Your task to perform on an android device: Open display settings Image 0: 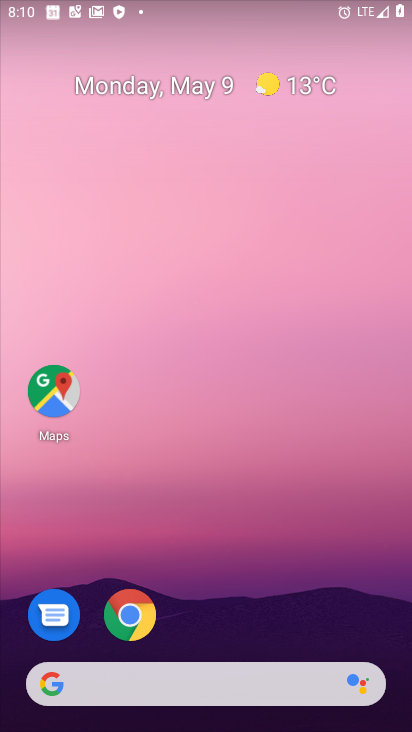
Step 0: drag from (203, 613) to (248, 122)
Your task to perform on an android device: Open display settings Image 1: 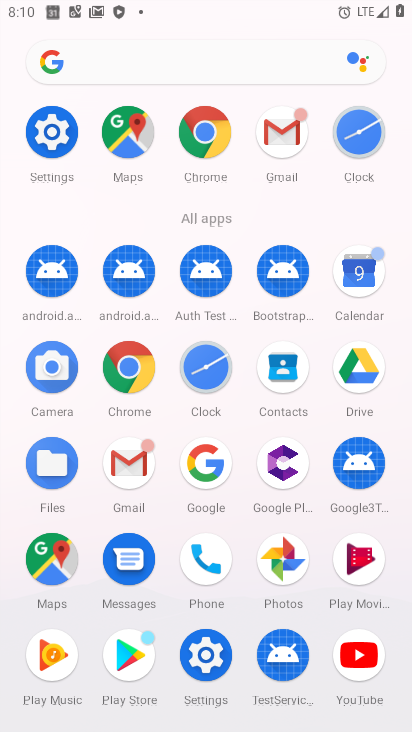
Step 1: click (50, 134)
Your task to perform on an android device: Open display settings Image 2: 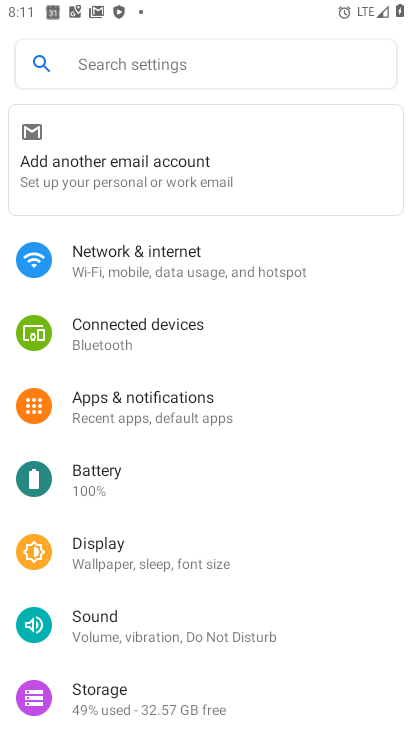
Step 2: click (87, 555)
Your task to perform on an android device: Open display settings Image 3: 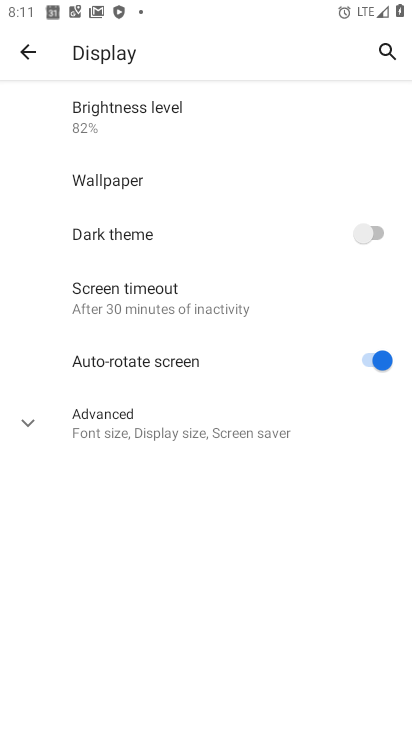
Step 3: task complete